Your task to perform on an android device: read, delete, or share a saved page in the chrome app Image 0: 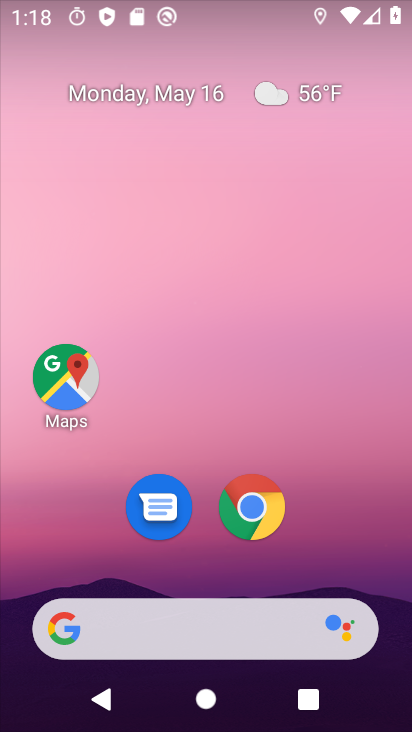
Step 0: click (261, 507)
Your task to perform on an android device: read, delete, or share a saved page in the chrome app Image 1: 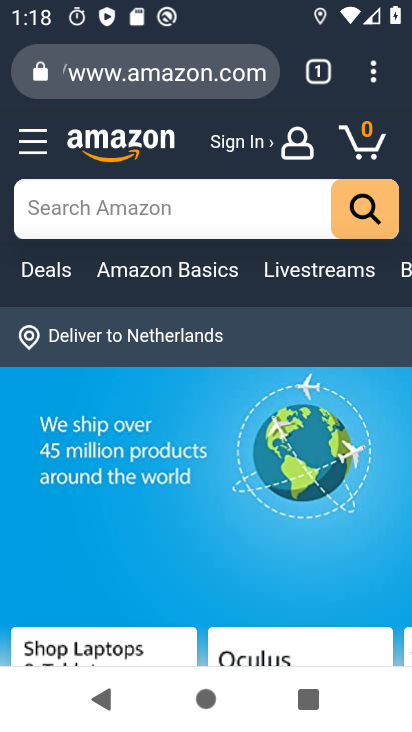
Step 1: click (372, 64)
Your task to perform on an android device: read, delete, or share a saved page in the chrome app Image 2: 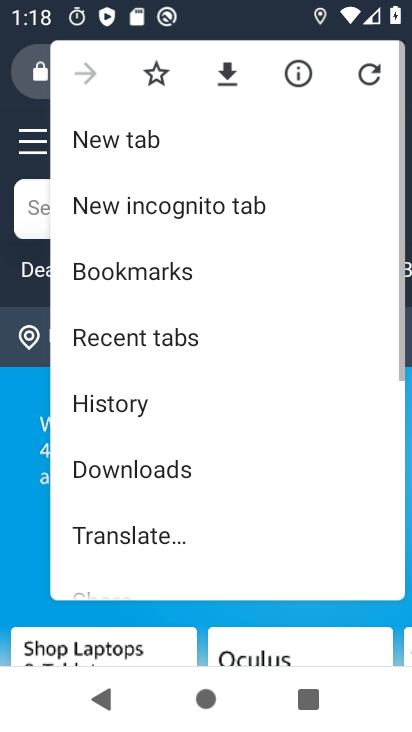
Step 2: drag from (174, 536) to (171, 219)
Your task to perform on an android device: read, delete, or share a saved page in the chrome app Image 3: 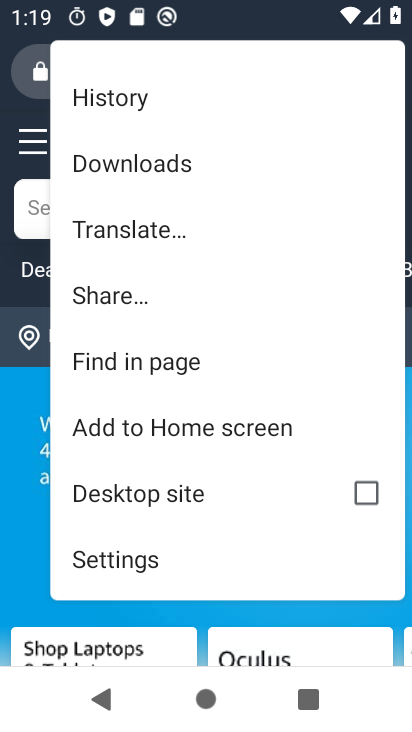
Step 3: click (104, 554)
Your task to perform on an android device: read, delete, or share a saved page in the chrome app Image 4: 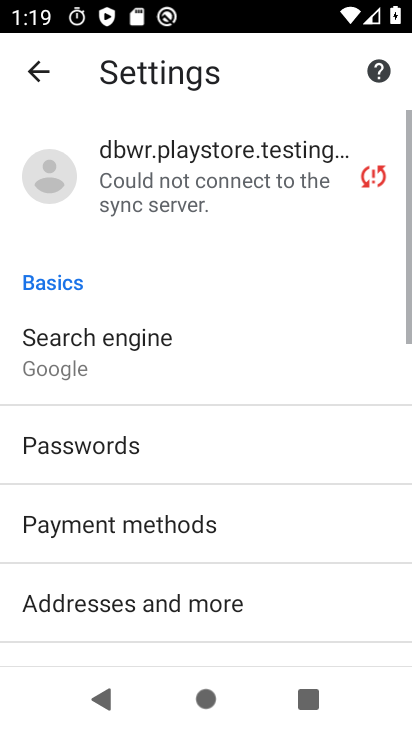
Step 4: drag from (164, 481) to (165, 152)
Your task to perform on an android device: read, delete, or share a saved page in the chrome app Image 5: 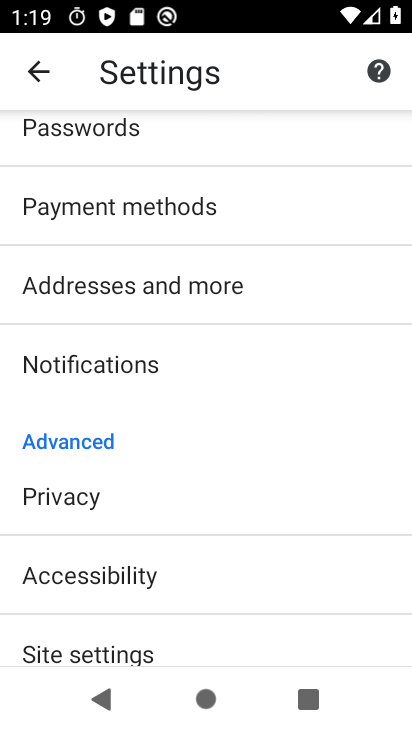
Step 5: drag from (171, 518) to (206, 588)
Your task to perform on an android device: read, delete, or share a saved page in the chrome app Image 6: 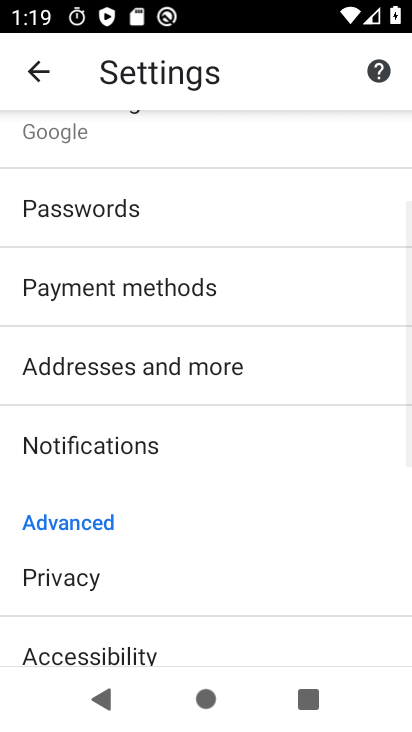
Step 6: press back button
Your task to perform on an android device: read, delete, or share a saved page in the chrome app Image 7: 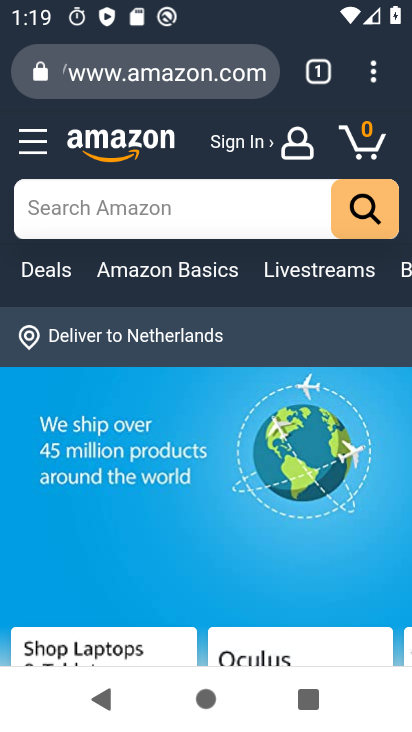
Step 7: click (362, 71)
Your task to perform on an android device: read, delete, or share a saved page in the chrome app Image 8: 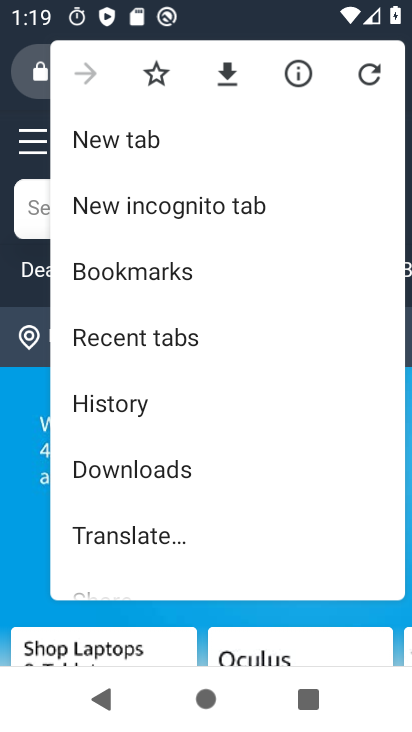
Step 8: click (140, 474)
Your task to perform on an android device: read, delete, or share a saved page in the chrome app Image 9: 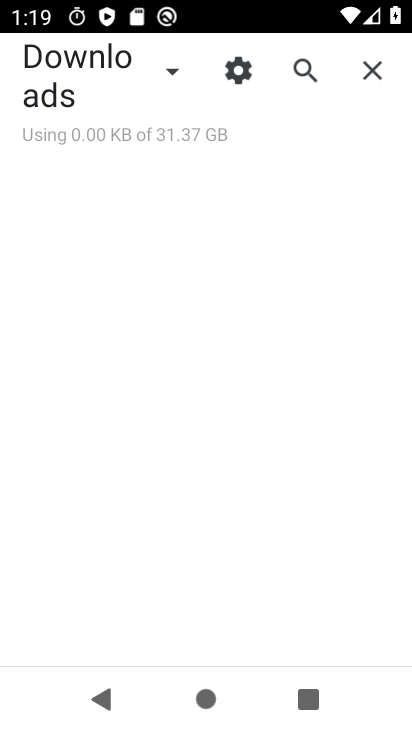
Step 9: task complete